Your task to perform on an android device: open app "Move to iOS" (install if not already installed), go to login, and select forgot password Image 0: 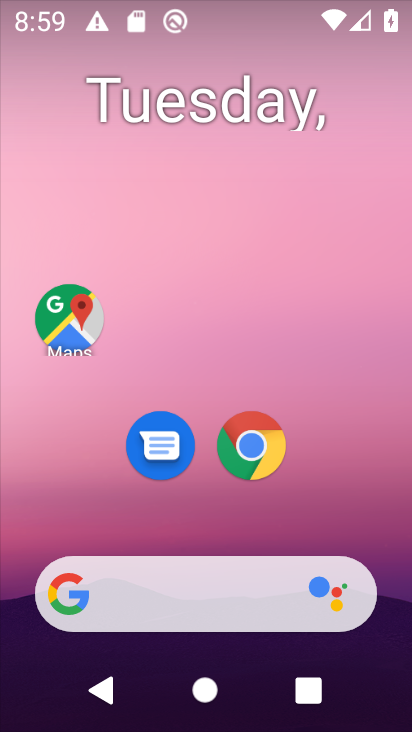
Step 0: drag from (193, 522) to (191, 193)
Your task to perform on an android device: open app "Move to iOS" (install if not already installed), go to login, and select forgot password Image 1: 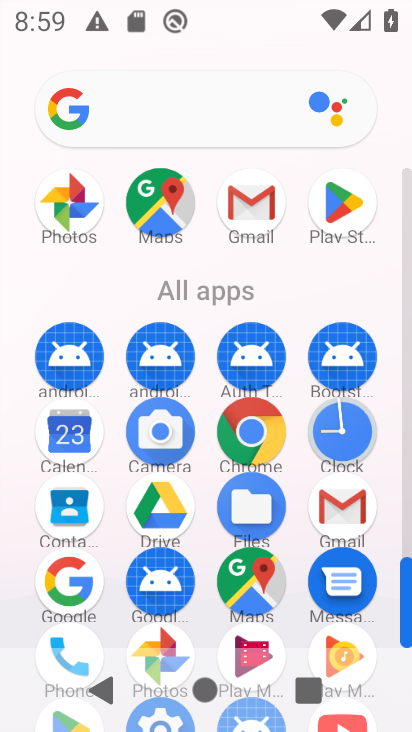
Step 1: click (325, 208)
Your task to perform on an android device: open app "Move to iOS" (install if not already installed), go to login, and select forgot password Image 2: 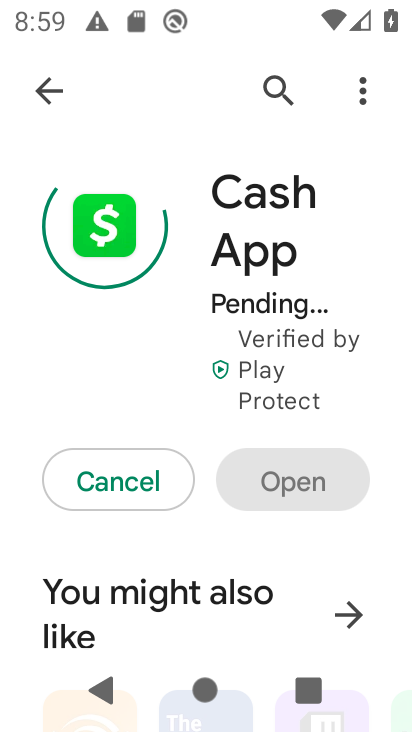
Step 2: click (51, 89)
Your task to perform on an android device: open app "Move to iOS" (install if not already installed), go to login, and select forgot password Image 3: 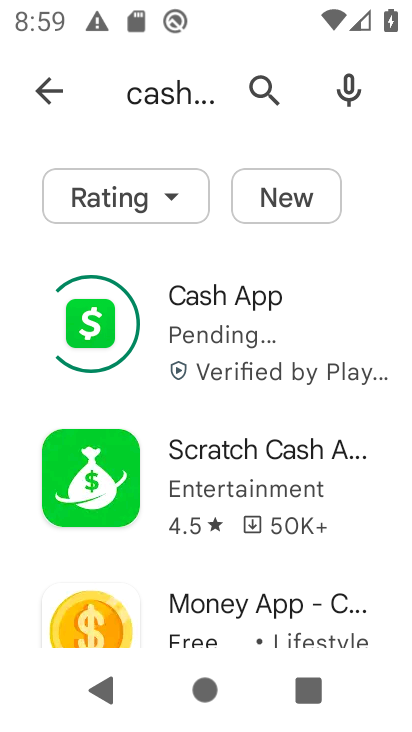
Step 3: click (250, 90)
Your task to perform on an android device: open app "Move to iOS" (install if not already installed), go to login, and select forgot password Image 4: 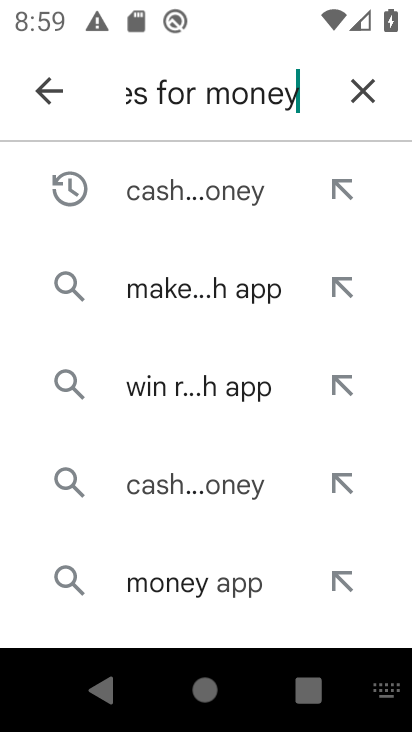
Step 4: click (377, 97)
Your task to perform on an android device: open app "Move to iOS" (install if not already installed), go to login, and select forgot password Image 5: 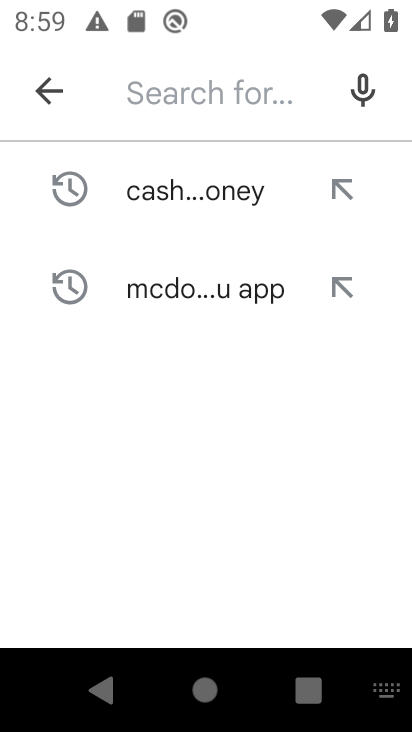
Step 5: click (147, 101)
Your task to perform on an android device: open app "Move to iOS" (install if not already installed), go to login, and select forgot password Image 6: 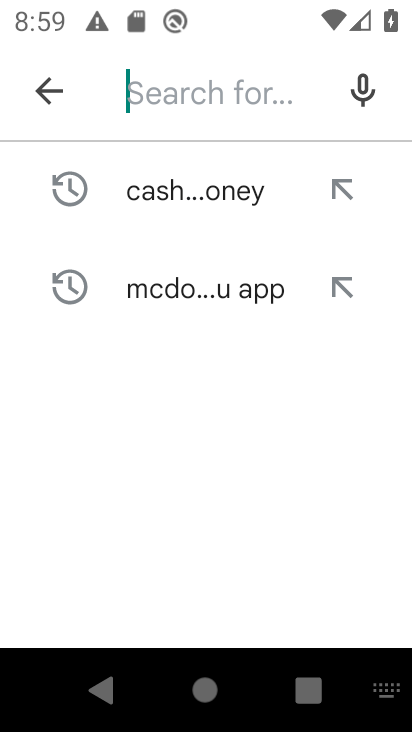
Step 6: type "Move to iOS "
Your task to perform on an android device: open app "Move to iOS" (install if not already installed), go to login, and select forgot password Image 7: 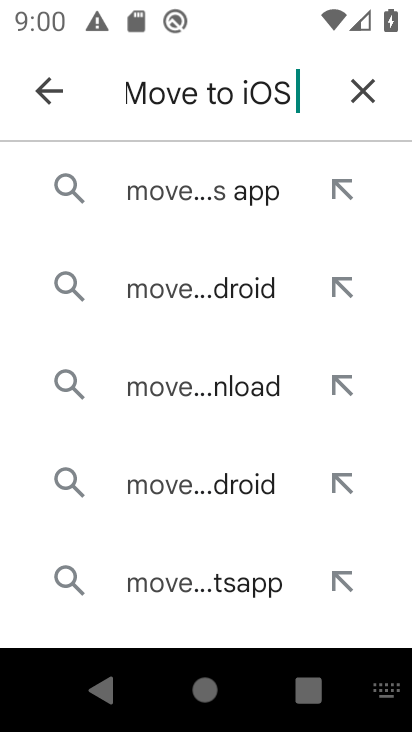
Step 7: click (142, 189)
Your task to perform on an android device: open app "Move to iOS" (install if not already installed), go to login, and select forgot password Image 8: 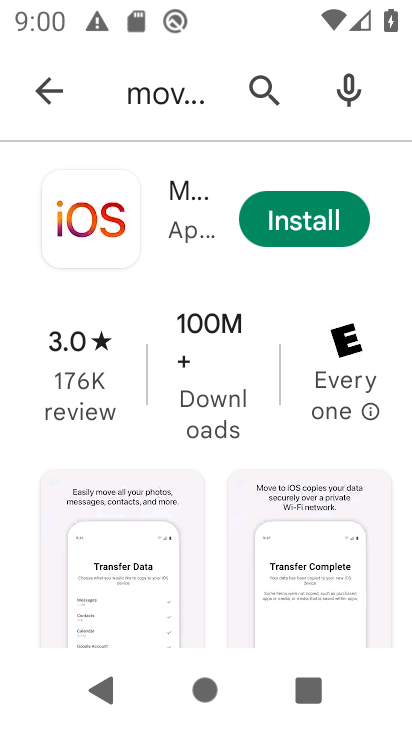
Step 8: click (291, 219)
Your task to perform on an android device: open app "Move to iOS" (install if not already installed), go to login, and select forgot password Image 9: 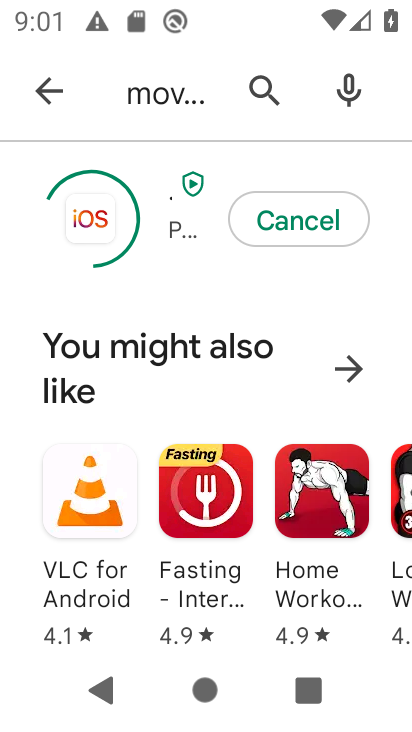
Step 9: task complete